Your task to perform on an android device: What is the recent news? Image 0: 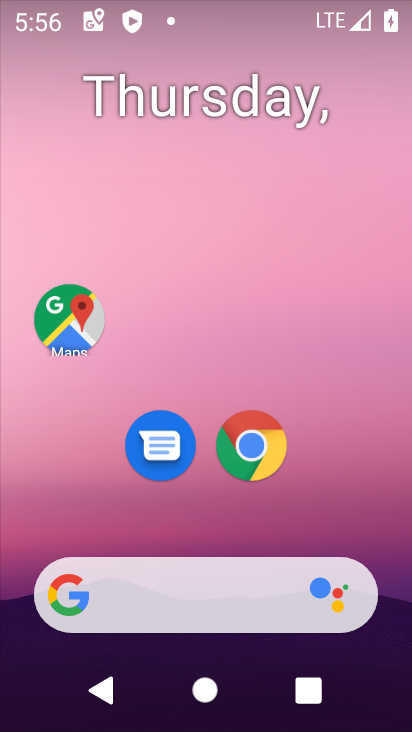
Step 0: drag from (297, 487) to (307, 157)
Your task to perform on an android device: What is the recent news? Image 1: 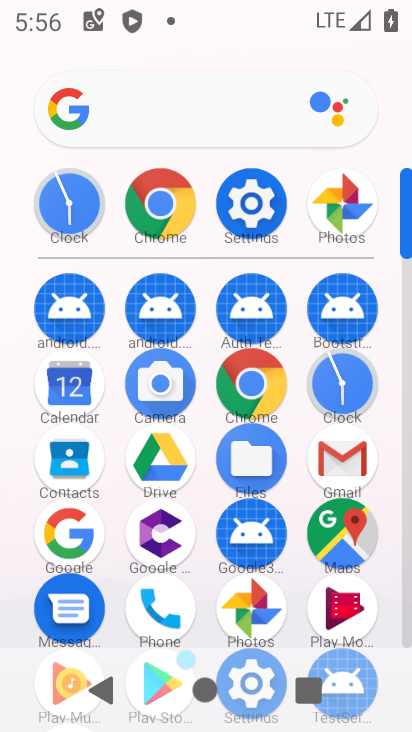
Step 1: click (256, 389)
Your task to perform on an android device: What is the recent news? Image 2: 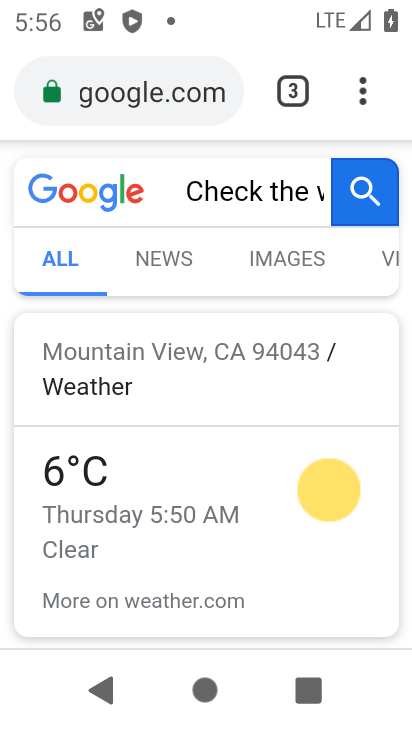
Step 2: click (185, 89)
Your task to perform on an android device: What is the recent news? Image 3: 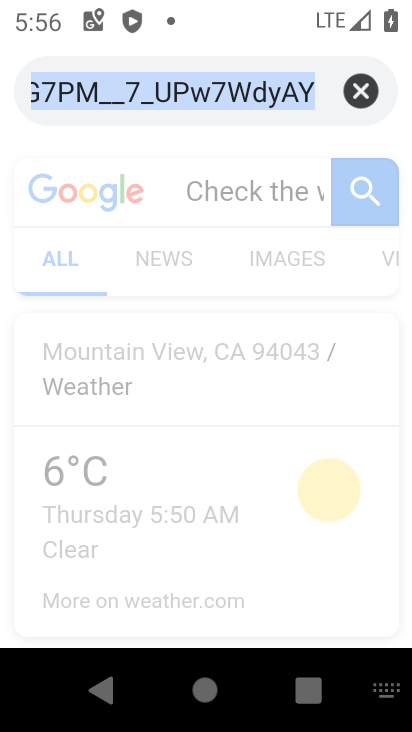
Step 3: click (365, 83)
Your task to perform on an android device: What is the recent news? Image 4: 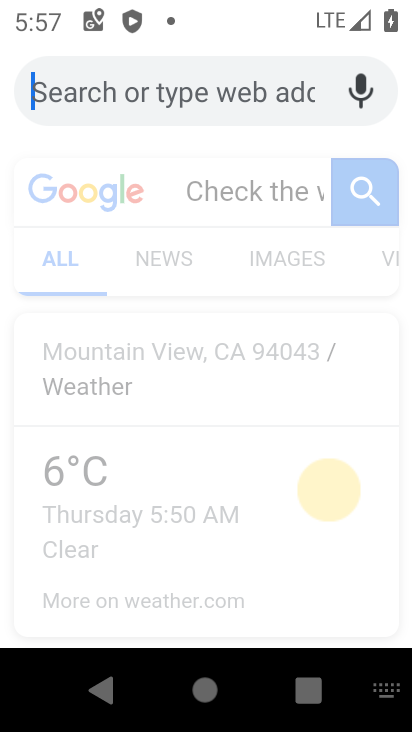
Step 4: type "recent news?"
Your task to perform on an android device: What is the recent news? Image 5: 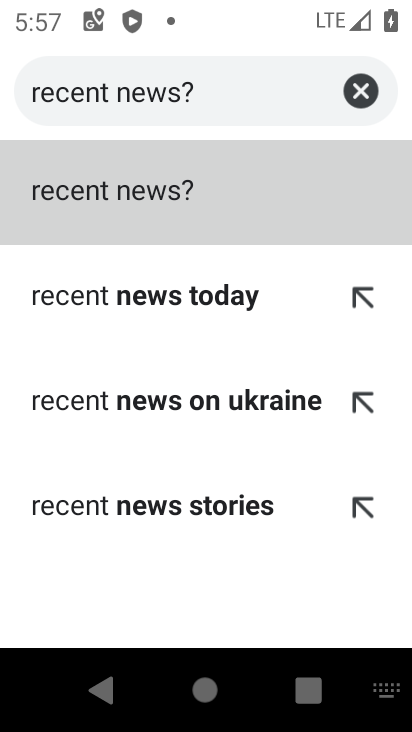
Step 5: click (149, 188)
Your task to perform on an android device: What is the recent news? Image 6: 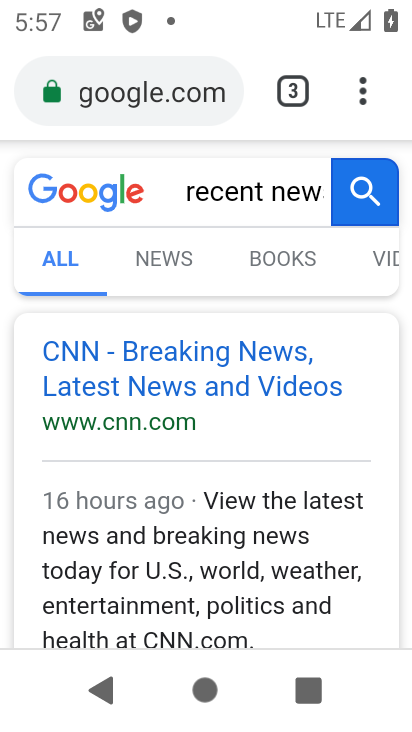
Step 6: click (165, 249)
Your task to perform on an android device: What is the recent news? Image 7: 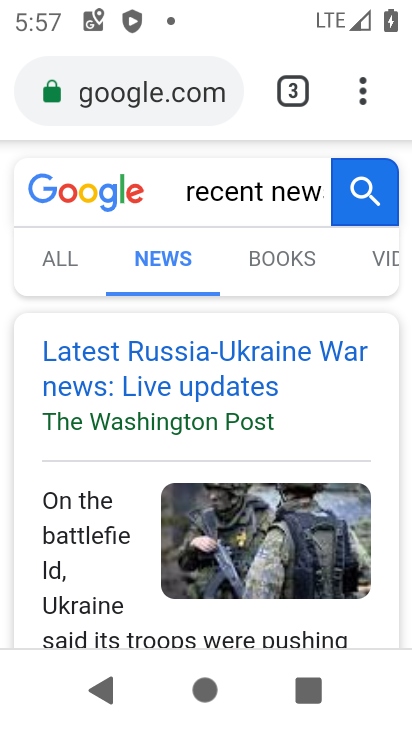
Step 7: task complete